Your task to perform on an android device: Show me the alarms in the clock app Image 0: 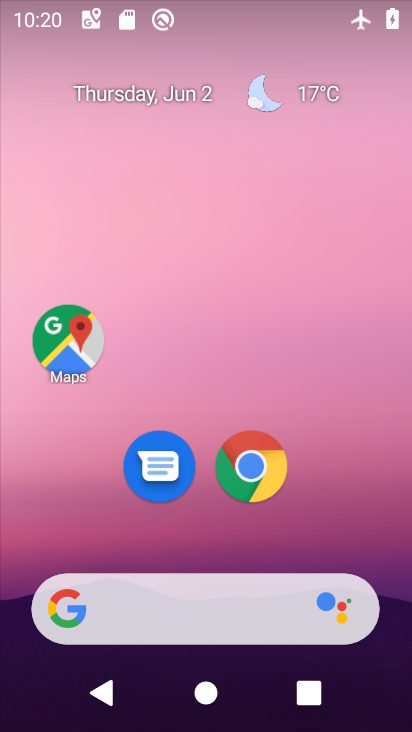
Step 0: drag from (323, 501) to (307, 205)
Your task to perform on an android device: Show me the alarms in the clock app Image 1: 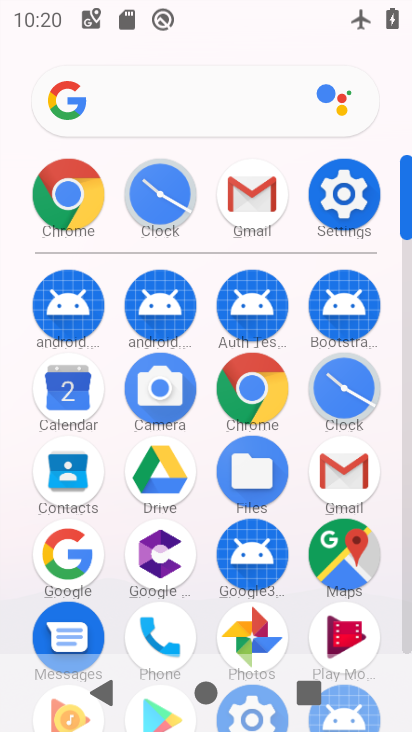
Step 1: click (354, 389)
Your task to perform on an android device: Show me the alarms in the clock app Image 2: 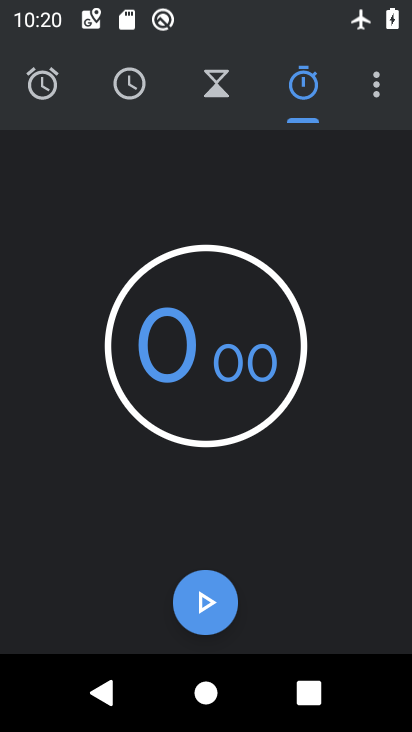
Step 2: click (49, 81)
Your task to perform on an android device: Show me the alarms in the clock app Image 3: 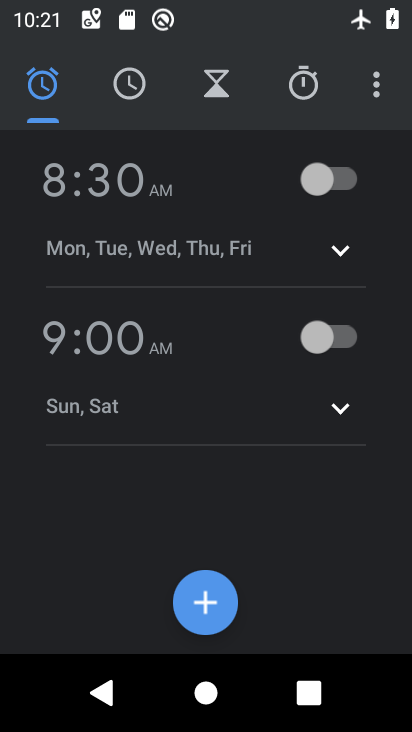
Step 3: task complete